Your task to perform on an android device: Go to privacy settings Image 0: 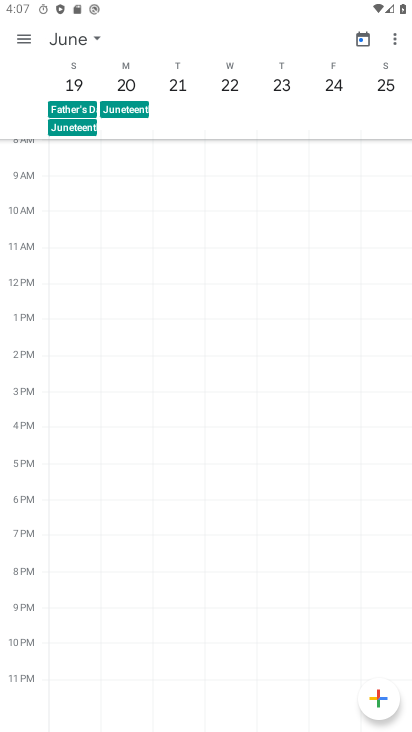
Step 0: press home button
Your task to perform on an android device: Go to privacy settings Image 1: 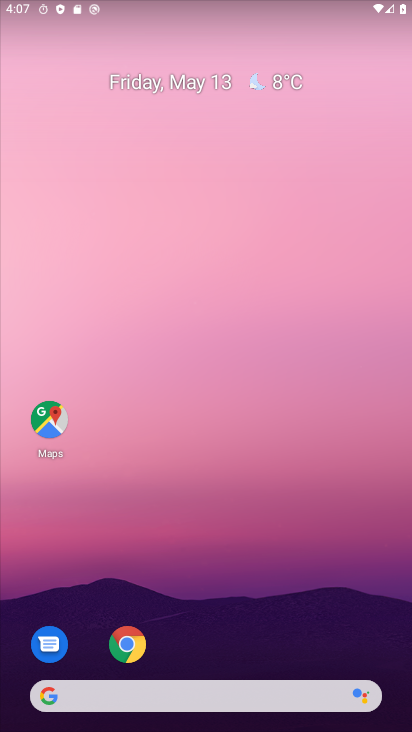
Step 1: drag from (224, 618) to (208, 160)
Your task to perform on an android device: Go to privacy settings Image 2: 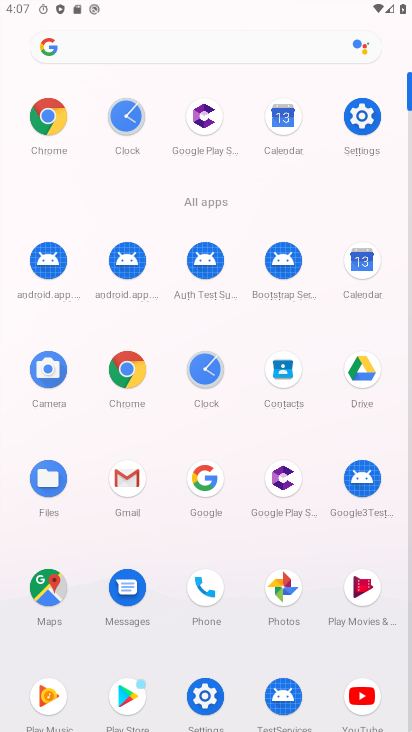
Step 2: click (370, 107)
Your task to perform on an android device: Go to privacy settings Image 3: 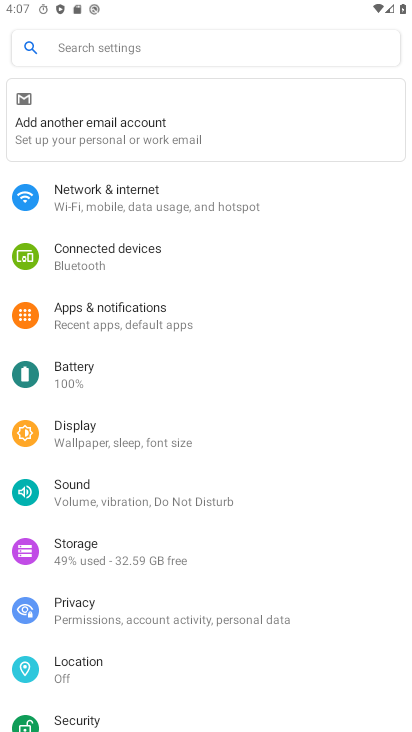
Step 3: click (140, 618)
Your task to perform on an android device: Go to privacy settings Image 4: 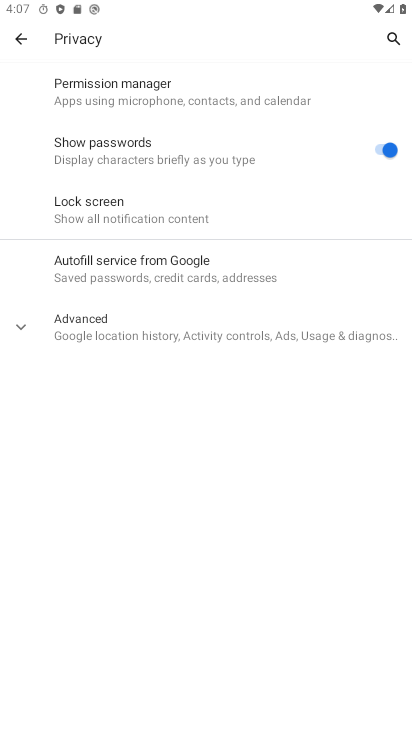
Step 4: task complete